Your task to perform on an android device: add a label to a message in the gmail app Image 0: 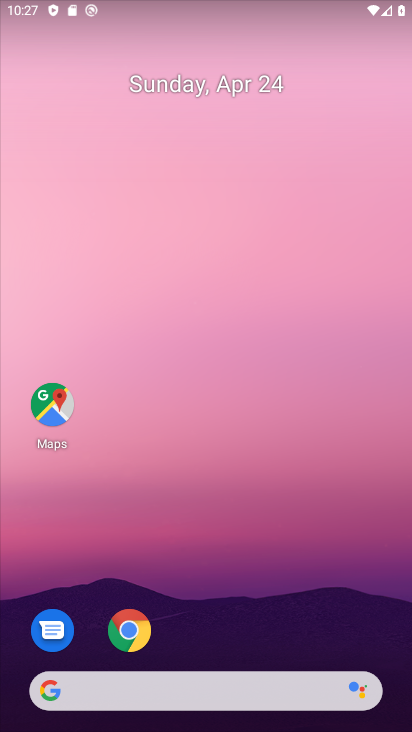
Step 0: drag from (219, 634) to (233, 256)
Your task to perform on an android device: add a label to a message in the gmail app Image 1: 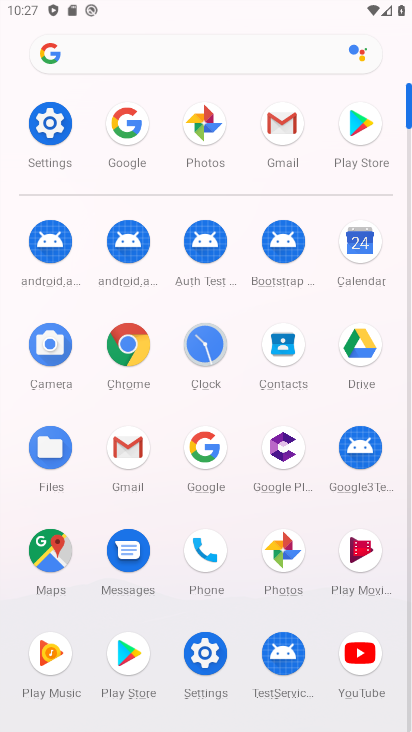
Step 1: click (264, 120)
Your task to perform on an android device: add a label to a message in the gmail app Image 2: 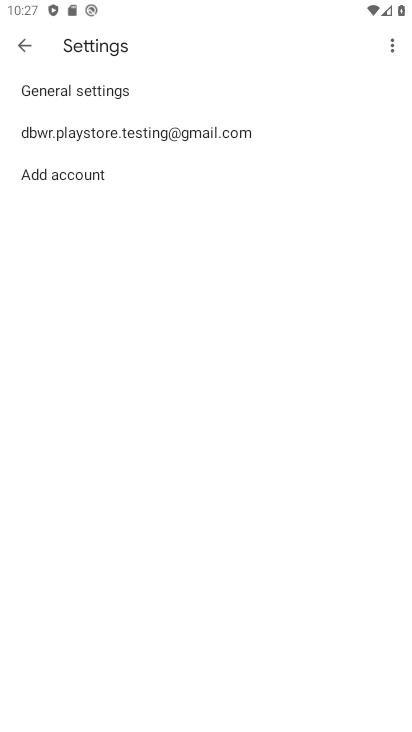
Step 2: click (197, 134)
Your task to perform on an android device: add a label to a message in the gmail app Image 3: 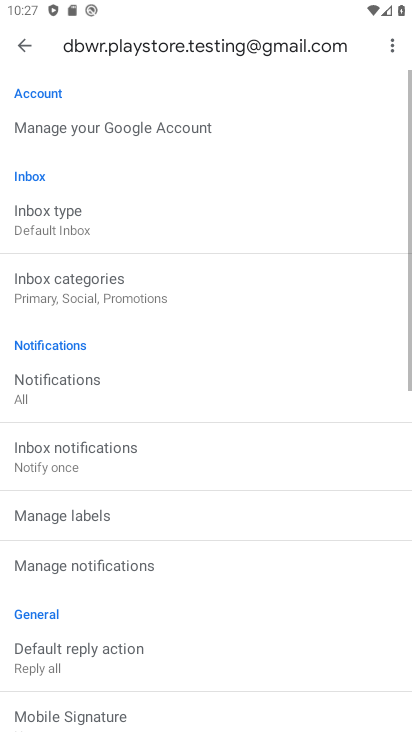
Step 3: click (23, 39)
Your task to perform on an android device: add a label to a message in the gmail app Image 4: 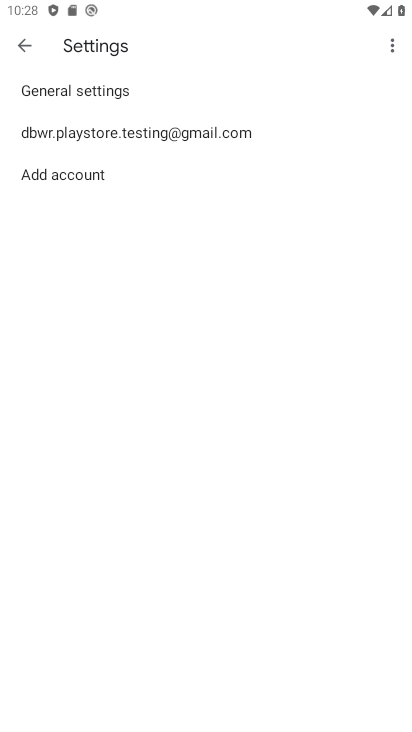
Step 4: click (23, 39)
Your task to perform on an android device: add a label to a message in the gmail app Image 5: 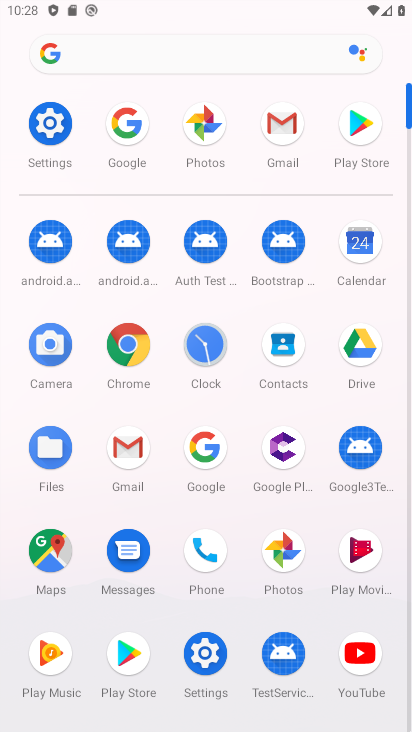
Step 5: click (275, 106)
Your task to perform on an android device: add a label to a message in the gmail app Image 6: 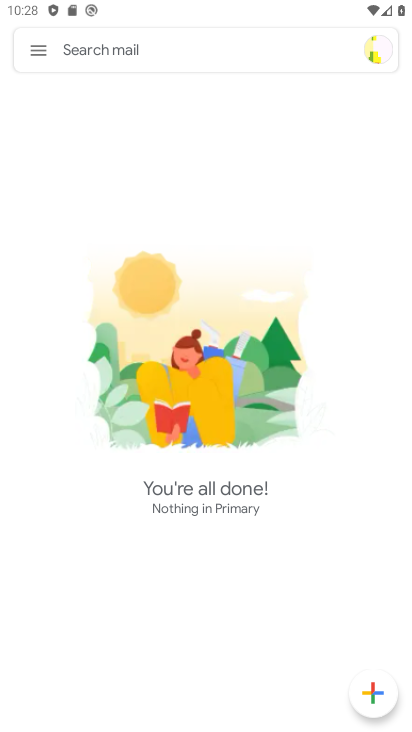
Step 6: click (38, 55)
Your task to perform on an android device: add a label to a message in the gmail app Image 7: 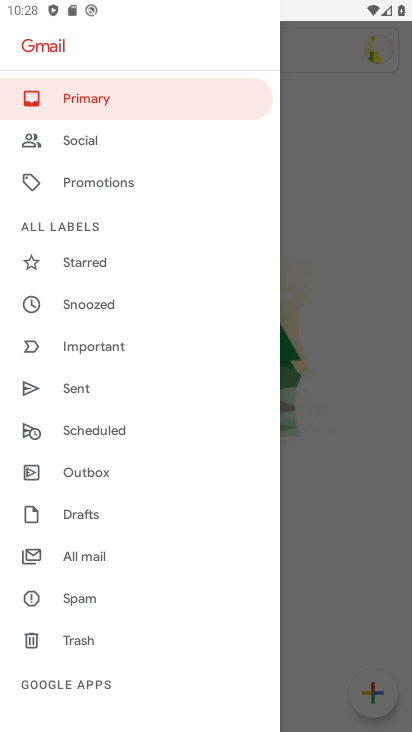
Step 7: click (107, 558)
Your task to perform on an android device: add a label to a message in the gmail app Image 8: 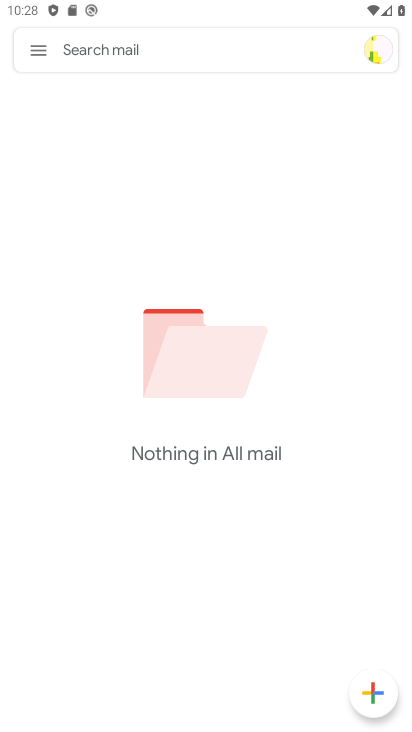
Step 8: task complete